Your task to perform on an android device: Open Chrome and go to the settings page Image 0: 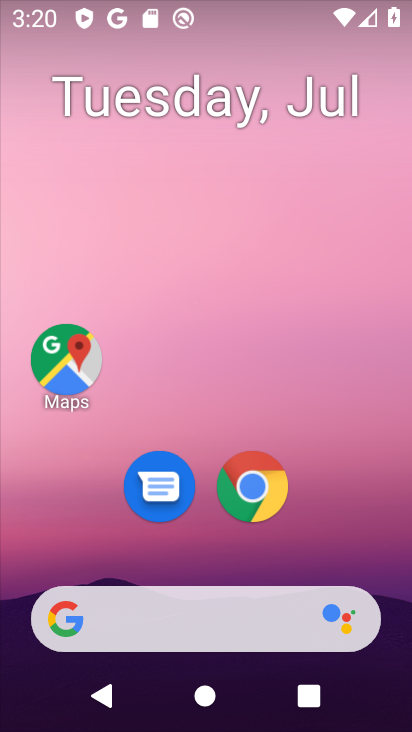
Step 0: click (255, 481)
Your task to perform on an android device: Open Chrome and go to the settings page Image 1: 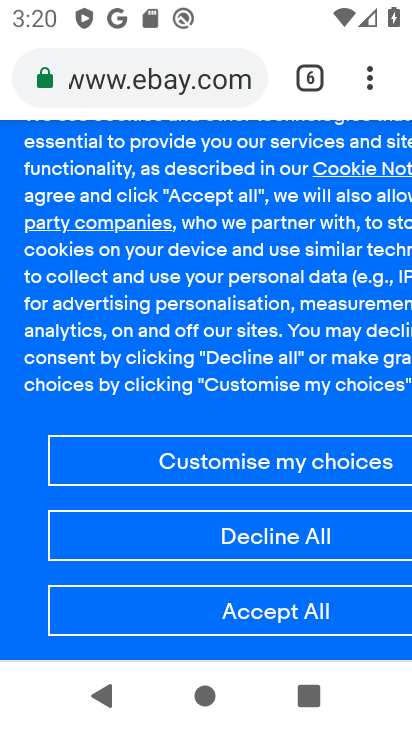
Step 1: task complete